Your task to perform on an android device: turn off location Image 0: 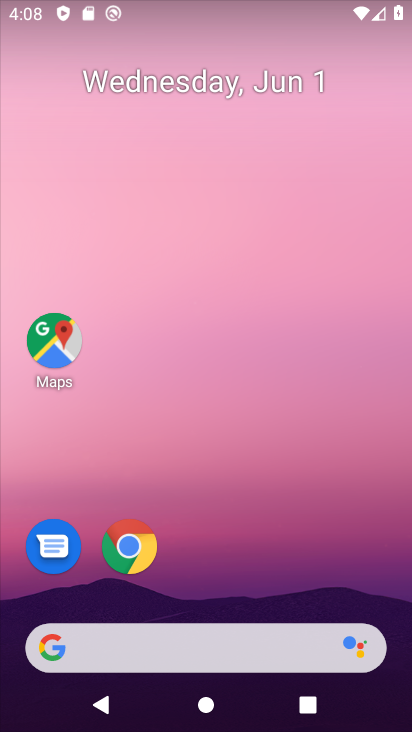
Step 0: drag from (265, 509) to (195, 144)
Your task to perform on an android device: turn off location Image 1: 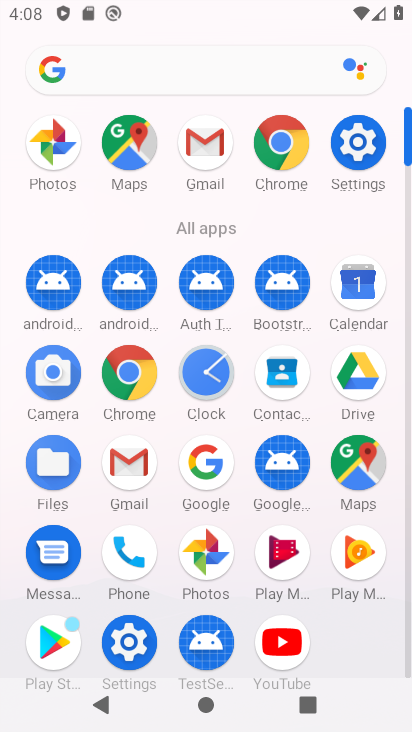
Step 1: click (349, 148)
Your task to perform on an android device: turn off location Image 2: 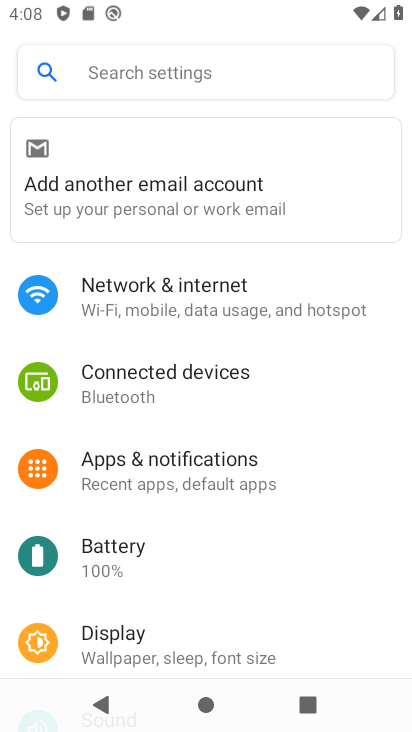
Step 2: drag from (210, 507) to (182, 218)
Your task to perform on an android device: turn off location Image 3: 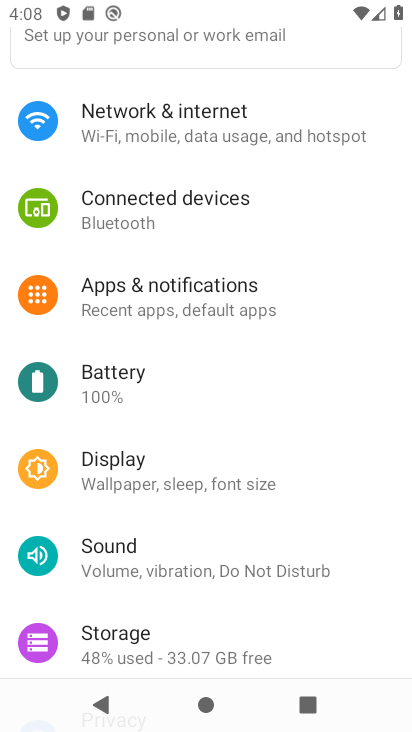
Step 3: drag from (212, 594) to (212, 290)
Your task to perform on an android device: turn off location Image 4: 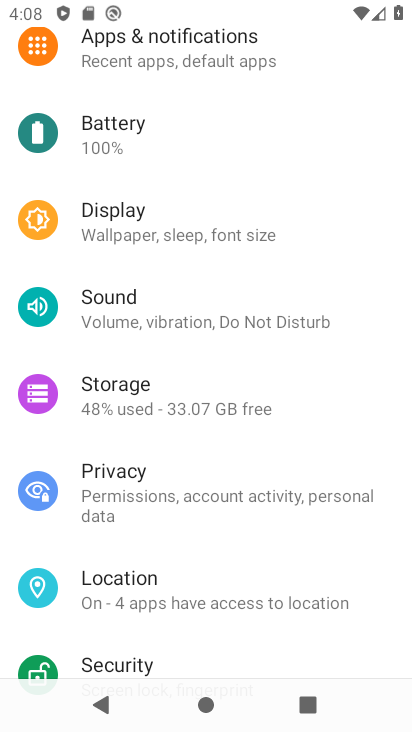
Step 4: click (112, 585)
Your task to perform on an android device: turn off location Image 5: 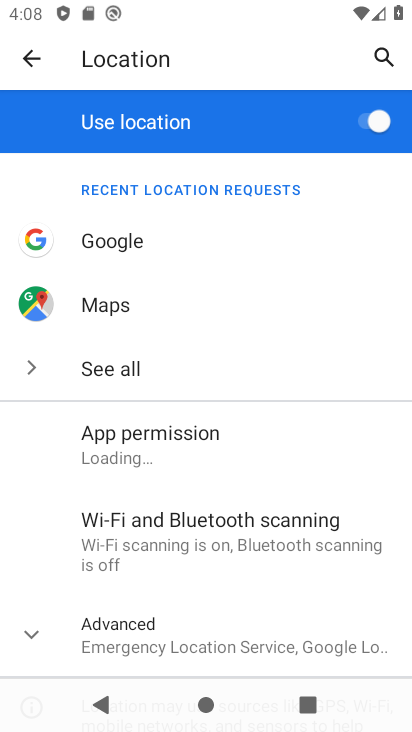
Step 5: click (369, 125)
Your task to perform on an android device: turn off location Image 6: 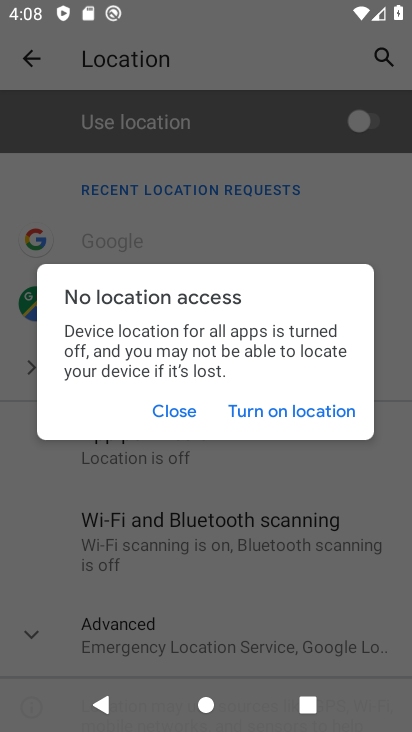
Step 6: task complete